Your task to perform on an android device: Open Google Maps Image 0: 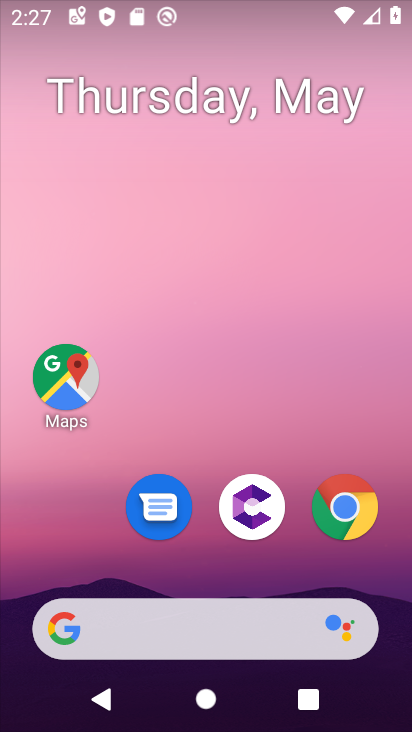
Step 0: press home button
Your task to perform on an android device: Open Google Maps Image 1: 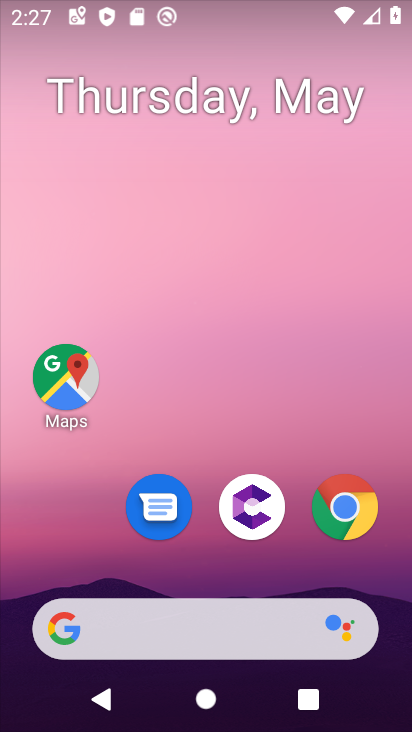
Step 1: click (61, 374)
Your task to perform on an android device: Open Google Maps Image 2: 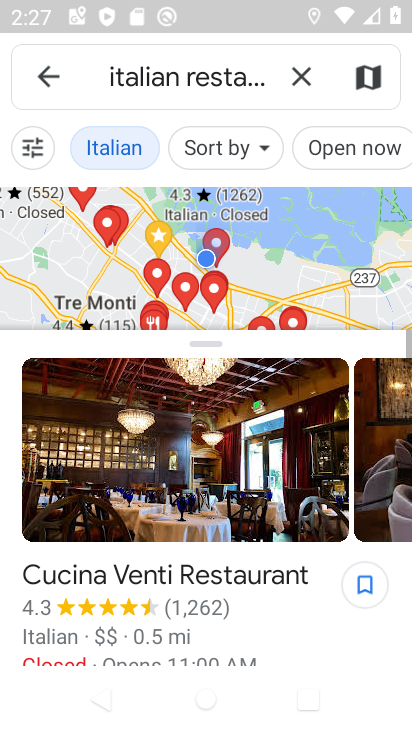
Step 2: click (301, 76)
Your task to perform on an android device: Open Google Maps Image 3: 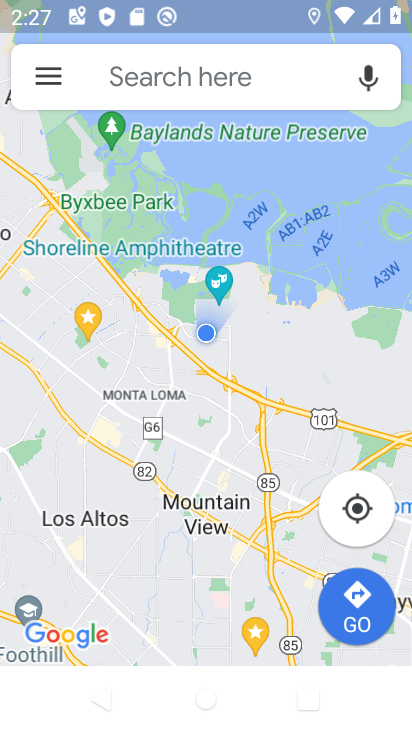
Step 3: task complete